Your task to perform on an android device: Toggle the flashlight Image 0: 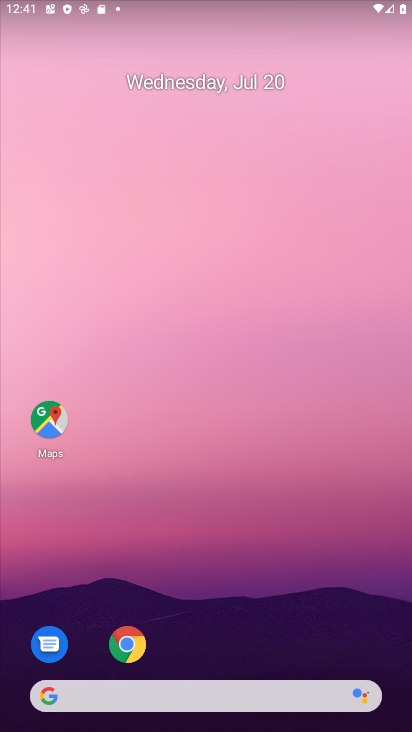
Step 0: press home button
Your task to perform on an android device: Toggle the flashlight Image 1: 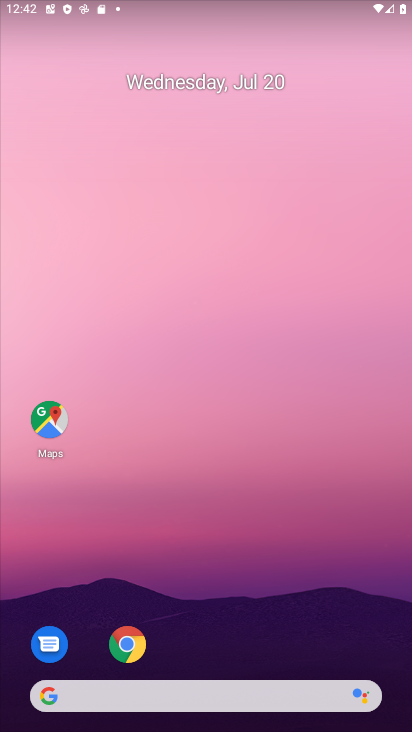
Step 1: task complete